Your task to perform on an android device: Go to Maps Image 0: 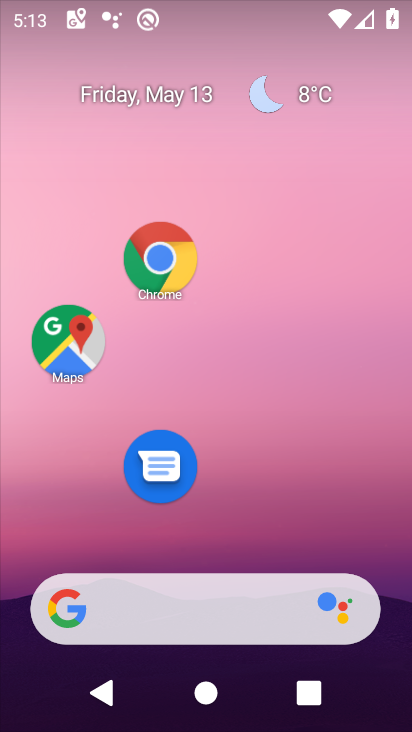
Step 0: drag from (322, 674) to (100, 15)
Your task to perform on an android device: Go to Maps Image 1: 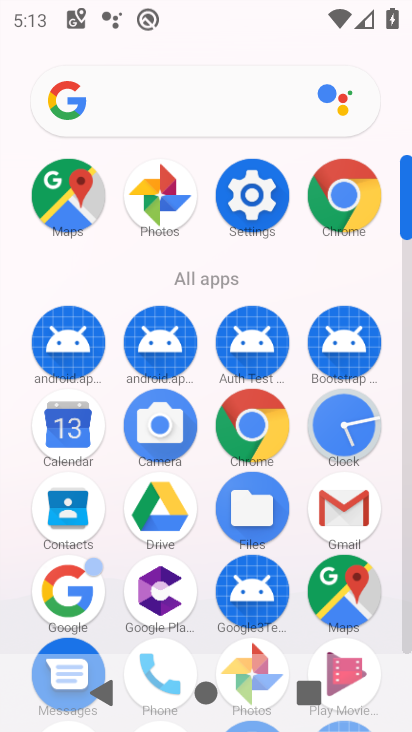
Step 1: click (83, 194)
Your task to perform on an android device: Go to Maps Image 2: 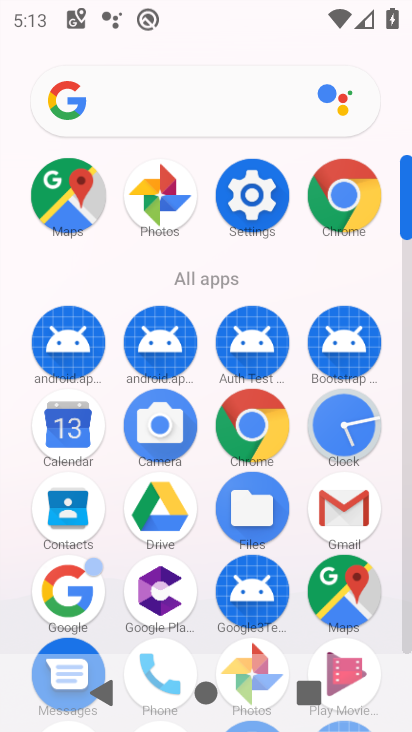
Step 2: click (45, 187)
Your task to perform on an android device: Go to Maps Image 3: 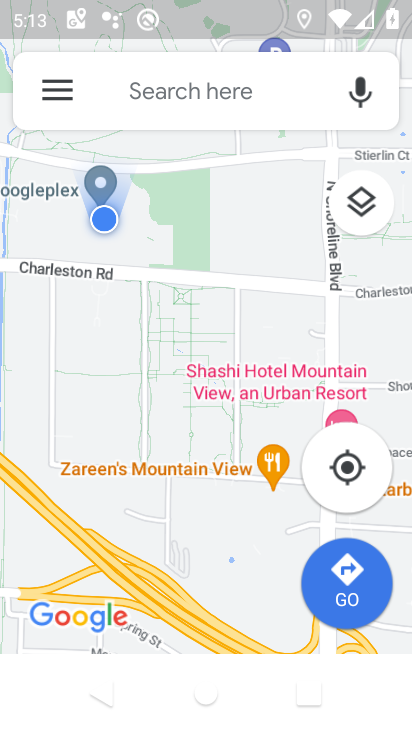
Step 3: click (78, 159)
Your task to perform on an android device: Go to Maps Image 4: 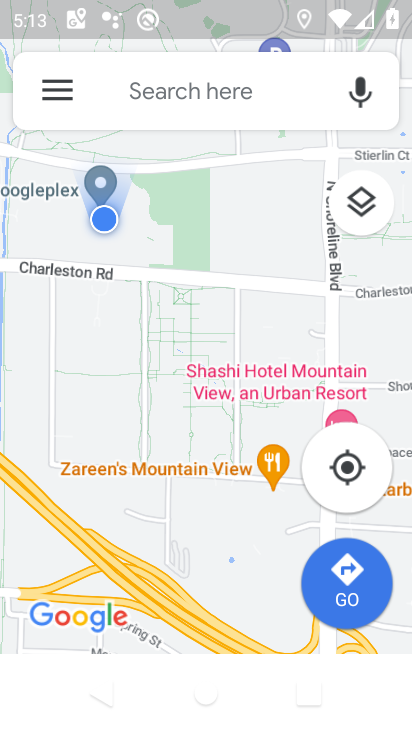
Step 4: click (79, 158)
Your task to perform on an android device: Go to Maps Image 5: 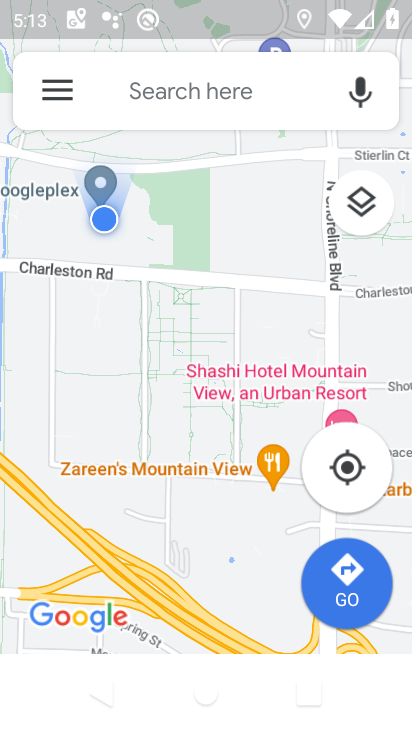
Step 5: click (80, 157)
Your task to perform on an android device: Go to Maps Image 6: 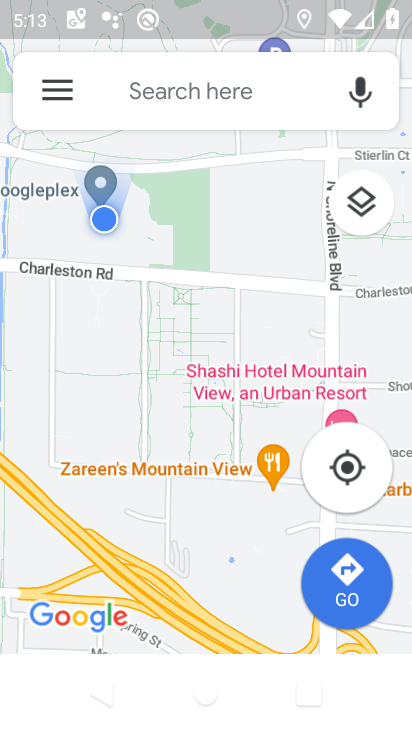
Step 6: click (80, 152)
Your task to perform on an android device: Go to Maps Image 7: 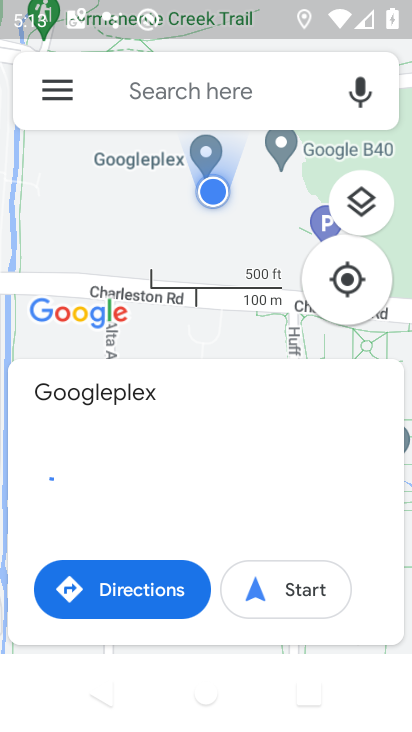
Step 7: drag from (192, 375) to (192, 608)
Your task to perform on an android device: Go to Maps Image 8: 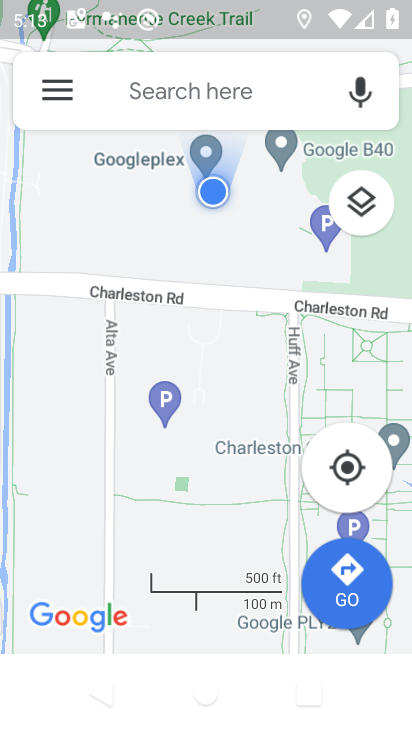
Step 8: drag from (172, 599) to (245, 511)
Your task to perform on an android device: Go to Maps Image 9: 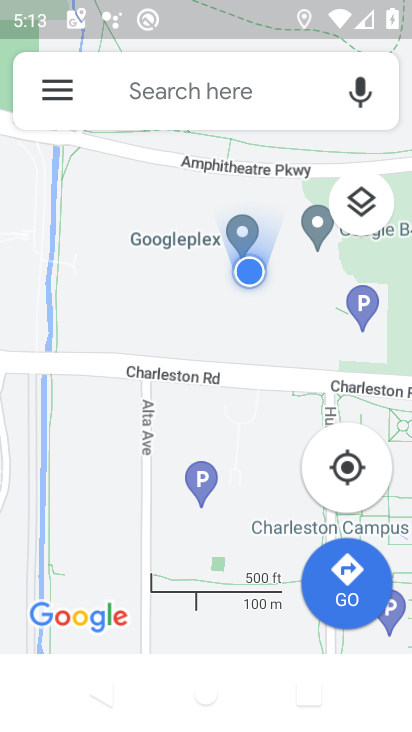
Step 9: drag from (206, 288) to (166, 483)
Your task to perform on an android device: Go to Maps Image 10: 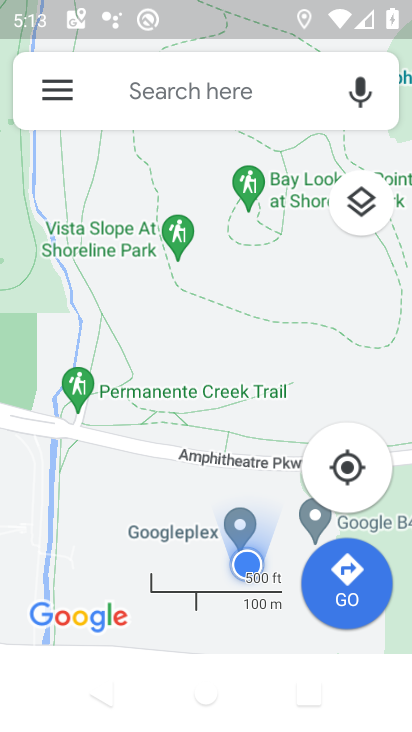
Step 10: drag from (234, 604) to (166, 478)
Your task to perform on an android device: Go to Maps Image 11: 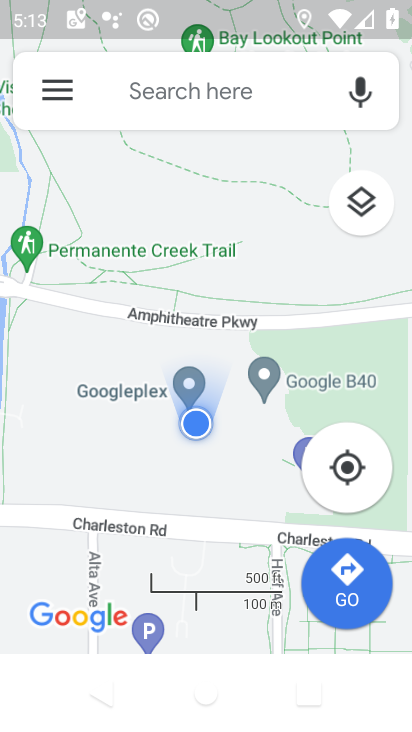
Step 11: click (231, 346)
Your task to perform on an android device: Go to Maps Image 12: 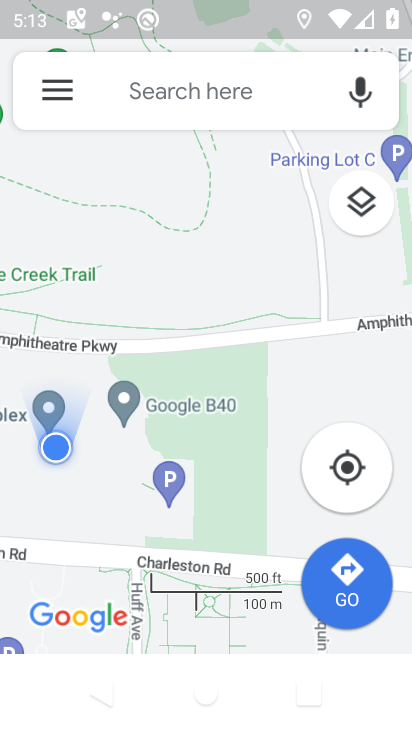
Step 12: drag from (222, 442) to (193, 353)
Your task to perform on an android device: Go to Maps Image 13: 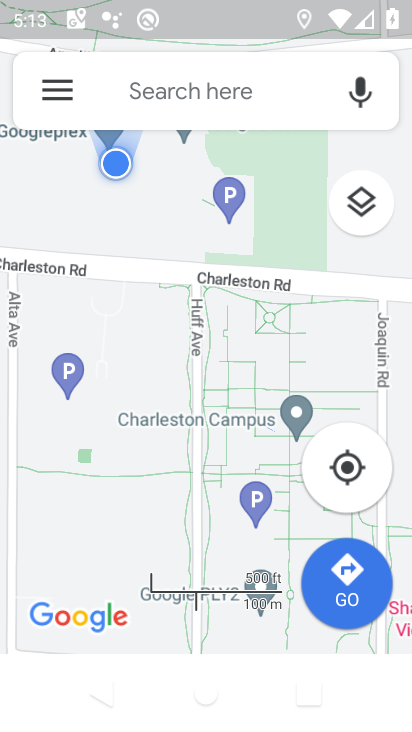
Step 13: drag from (178, 237) to (214, 453)
Your task to perform on an android device: Go to Maps Image 14: 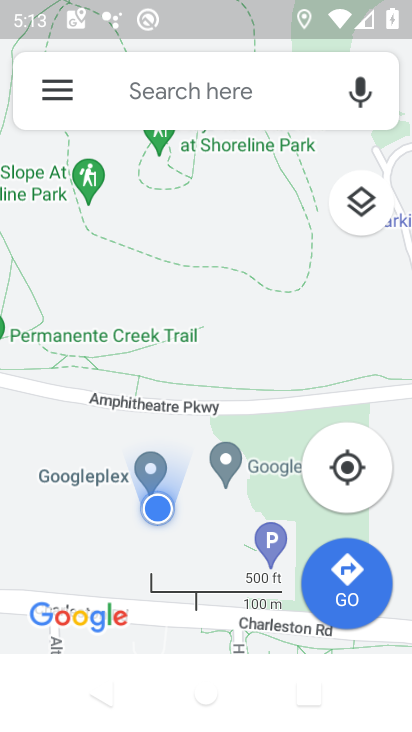
Step 14: click (207, 446)
Your task to perform on an android device: Go to Maps Image 15: 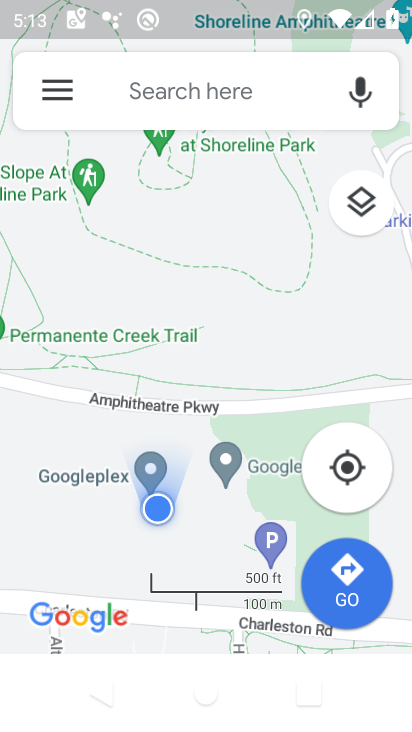
Step 15: task complete